Your task to perform on an android device: snooze an email in the gmail app Image 0: 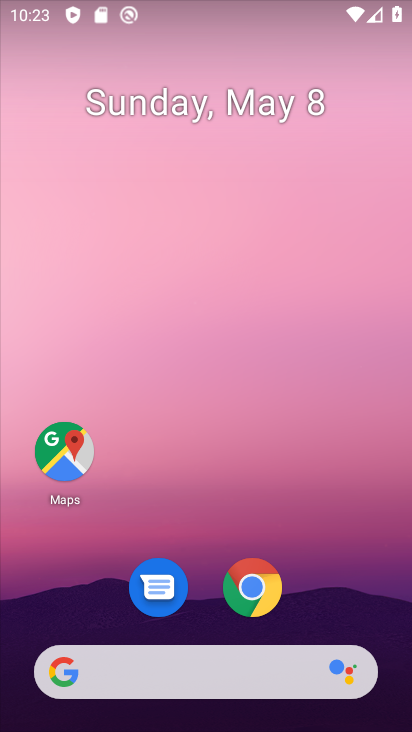
Step 0: drag from (358, 583) to (17, 0)
Your task to perform on an android device: snooze an email in the gmail app Image 1: 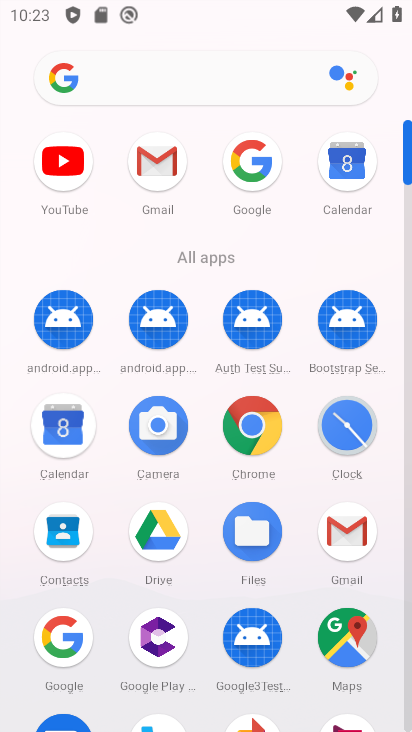
Step 1: click (153, 163)
Your task to perform on an android device: snooze an email in the gmail app Image 2: 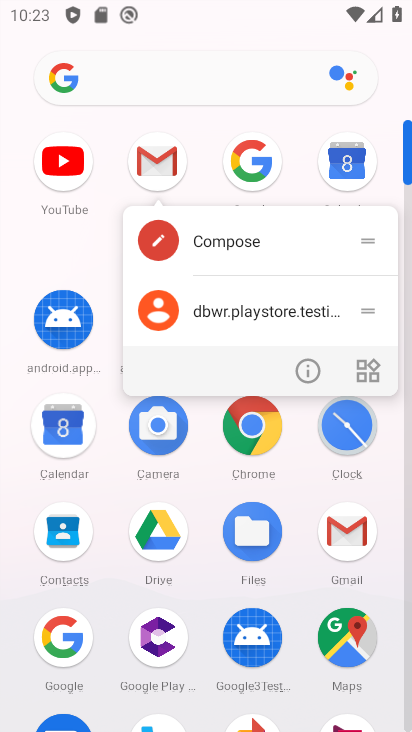
Step 2: click (151, 168)
Your task to perform on an android device: snooze an email in the gmail app Image 3: 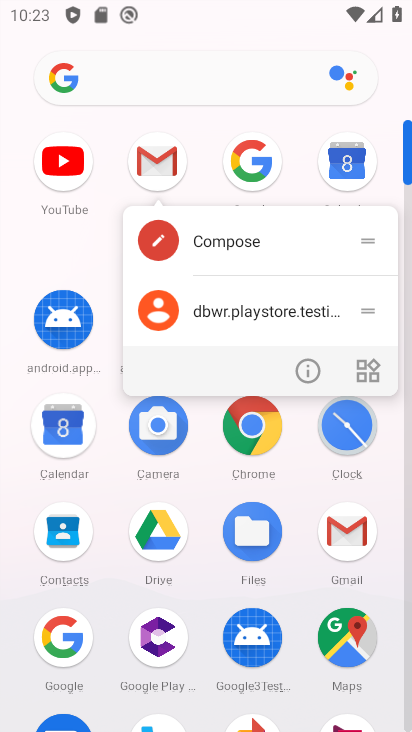
Step 3: click (145, 163)
Your task to perform on an android device: snooze an email in the gmail app Image 4: 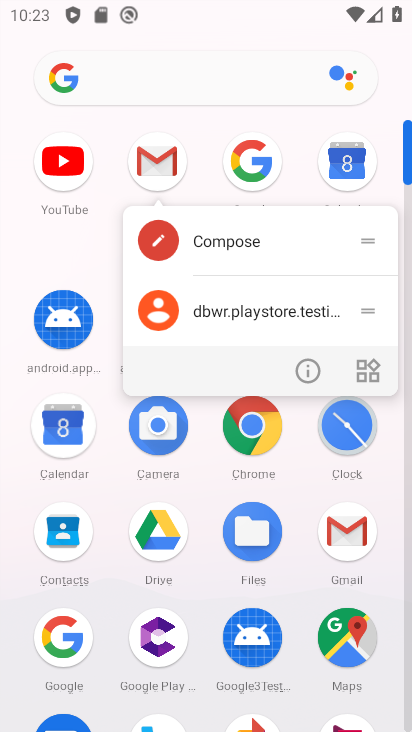
Step 4: click (145, 163)
Your task to perform on an android device: snooze an email in the gmail app Image 5: 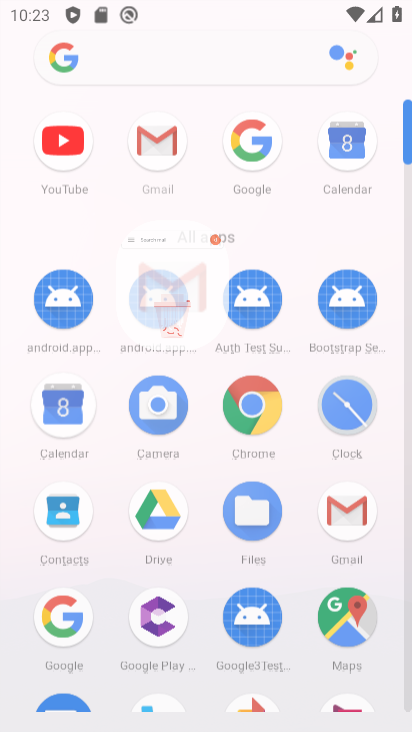
Step 5: click (145, 163)
Your task to perform on an android device: snooze an email in the gmail app Image 6: 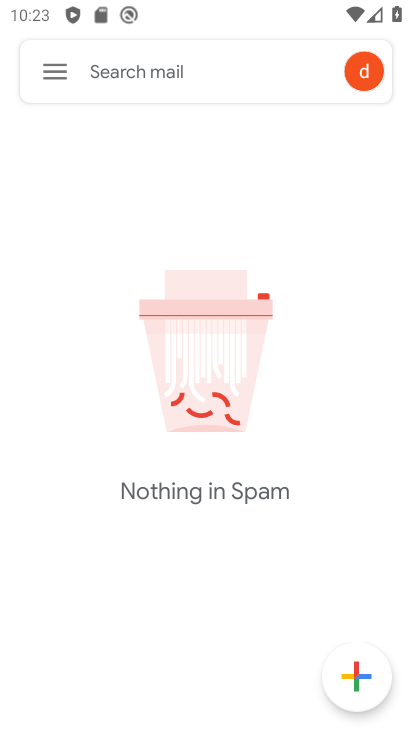
Step 6: click (43, 66)
Your task to perform on an android device: snooze an email in the gmail app Image 7: 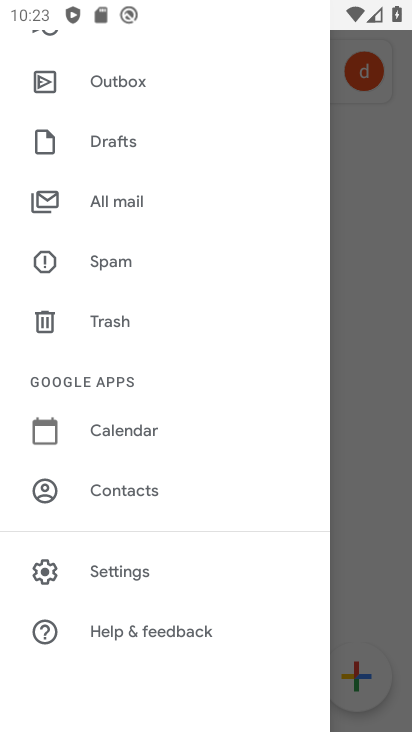
Step 7: click (122, 567)
Your task to perform on an android device: snooze an email in the gmail app Image 8: 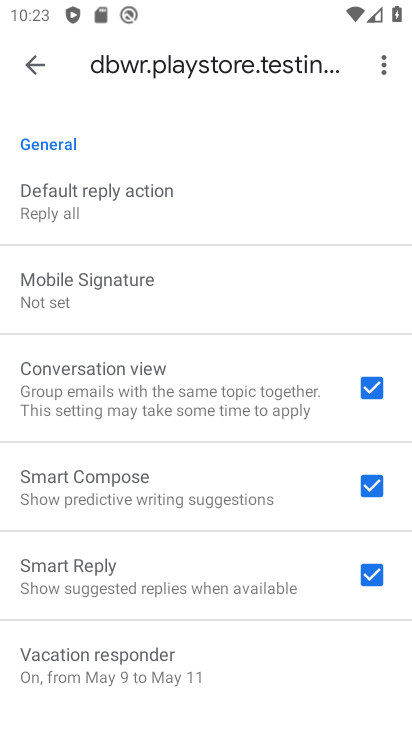
Step 8: click (27, 56)
Your task to perform on an android device: snooze an email in the gmail app Image 9: 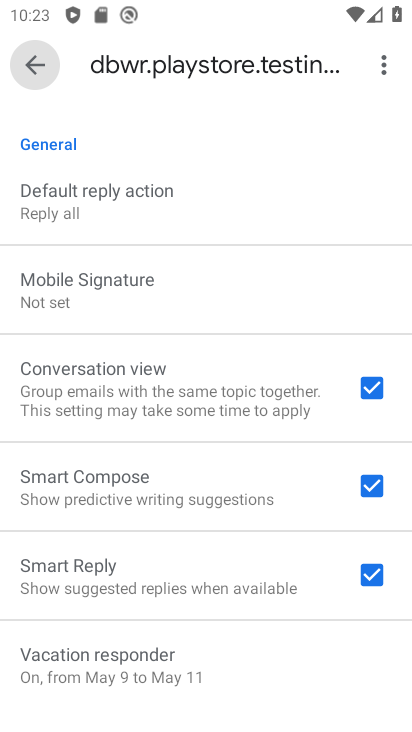
Step 9: click (27, 56)
Your task to perform on an android device: snooze an email in the gmail app Image 10: 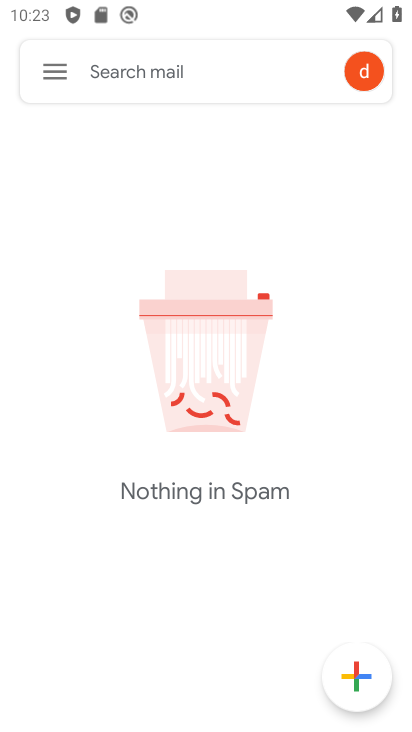
Step 10: click (58, 70)
Your task to perform on an android device: snooze an email in the gmail app Image 11: 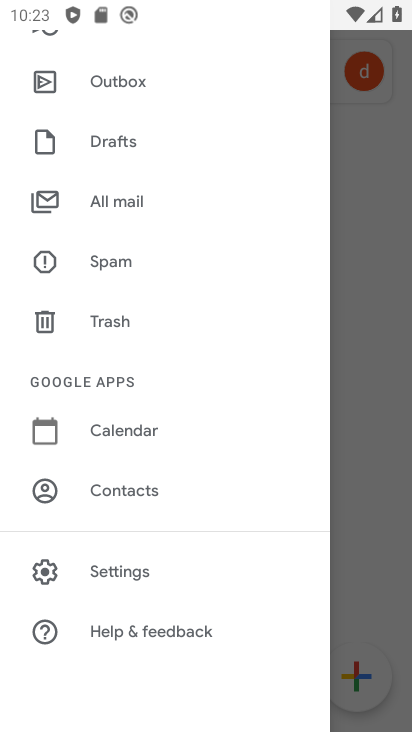
Step 11: click (119, 199)
Your task to perform on an android device: snooze an email in the gmail app Image 12: 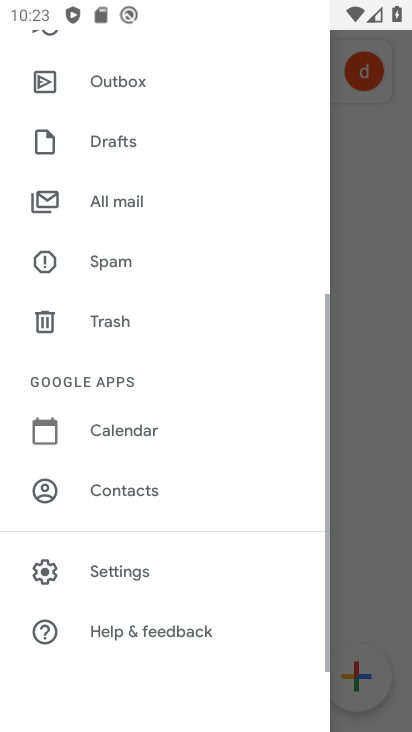
Step 12: click (119, 199)
Your task to perform on an android device: snooze an email in the gmail app Image 13: 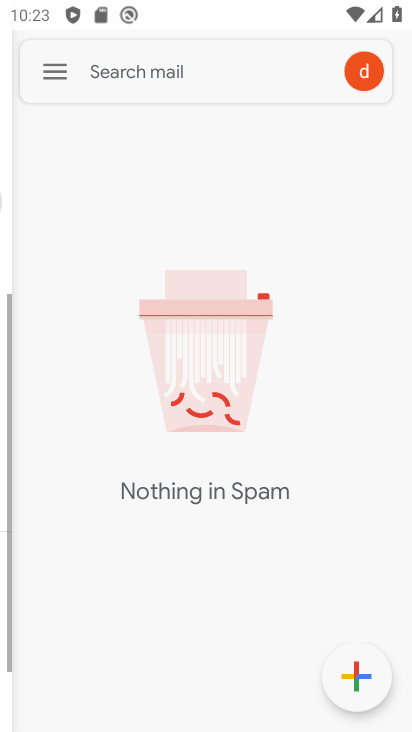
Step 13: click (119, 199)
Your task to perform on an android device: snooze an email in the gmail app Image 14: 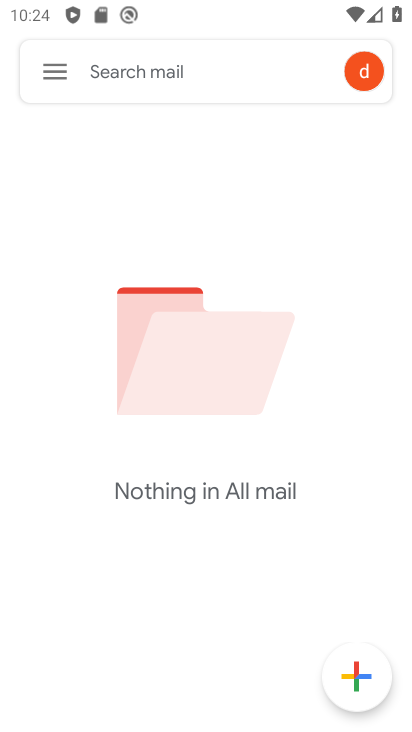
Step 14: task complete